Your task to perform on an android device: open a bookmark in the chrome app Image 0: 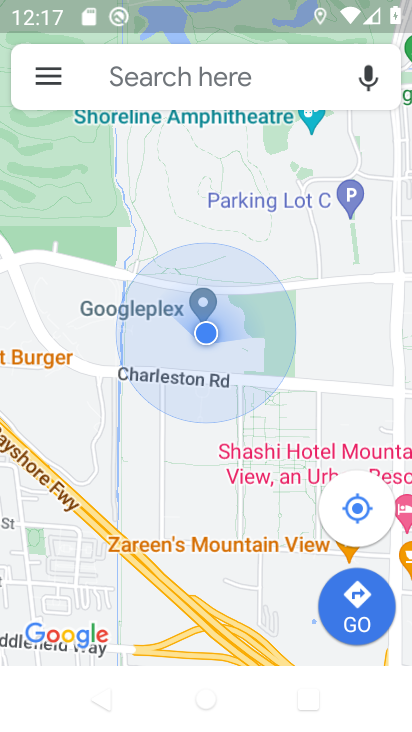
Step 0: press home button
Your task to perform on an android device: open a bookmark in the chrome app Image 1: 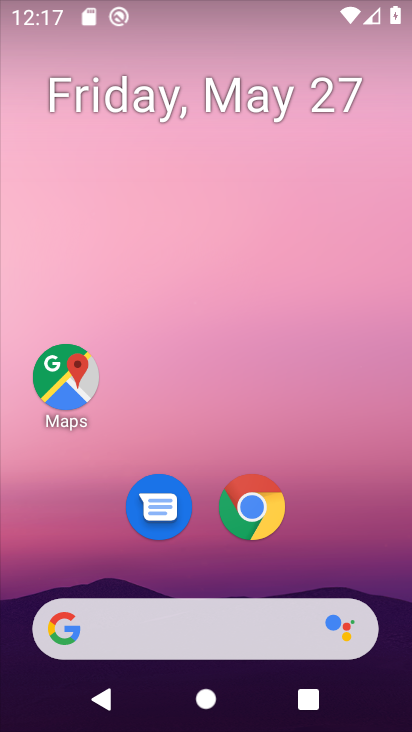
Step 1: click (245, 513)
Your task to perform on an android device: open a bookmark in the chrome app Image 2: 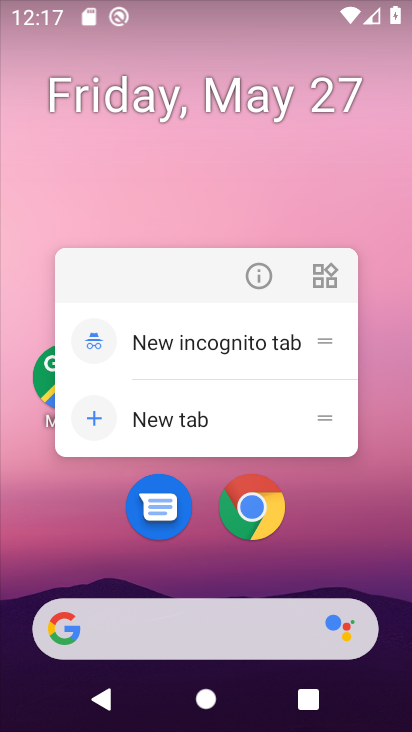
Step 2: click (246, 514)
Your task to perform on an android device: open a bookmark in the chrome app Image 3: 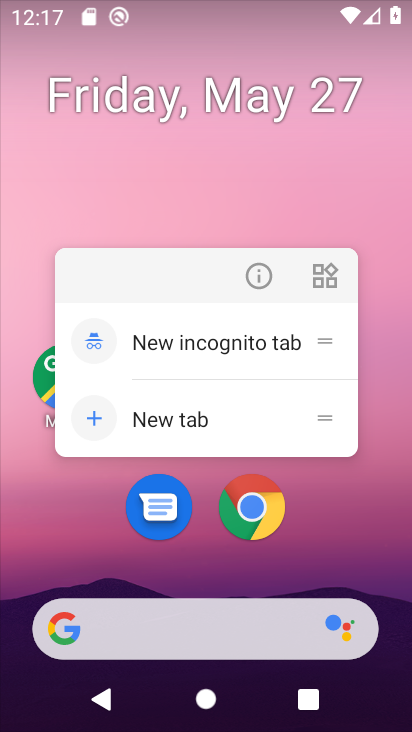
Step 3: click (246, 514)
Your task to perform on an android device: open a bookmark in the chrome app Image 4: 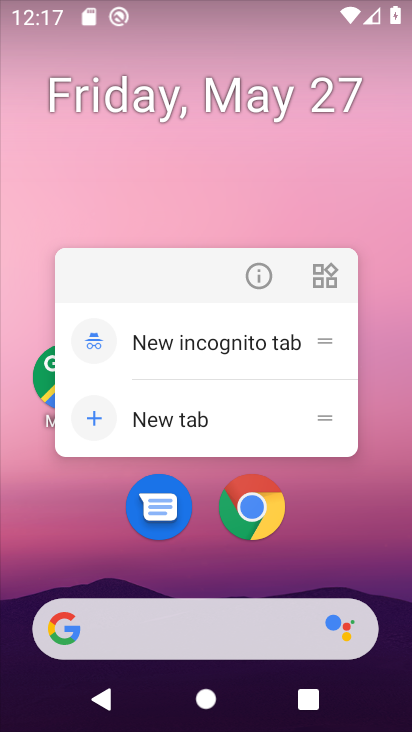
Step 4: click (257, 512)
Your task to perform on an android device: open a bookmark in the chrome app Image 5: 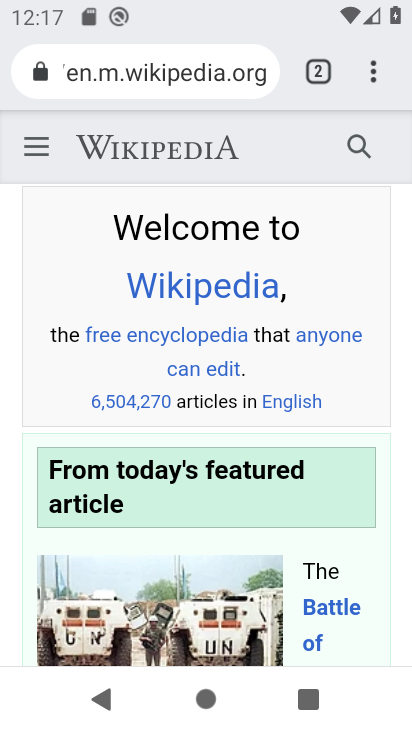
Step 5: task complete